Your task to perform on an android device: Go to wifi settings Image 0: 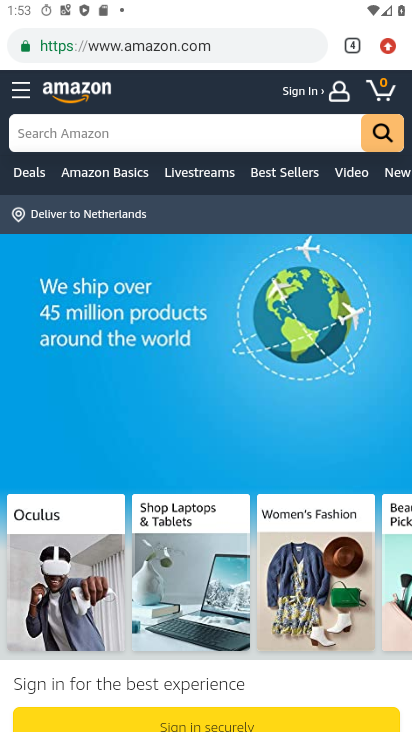
Step 0: press home button
Your task to perform on an android device: Go to wifi settings Image 1: 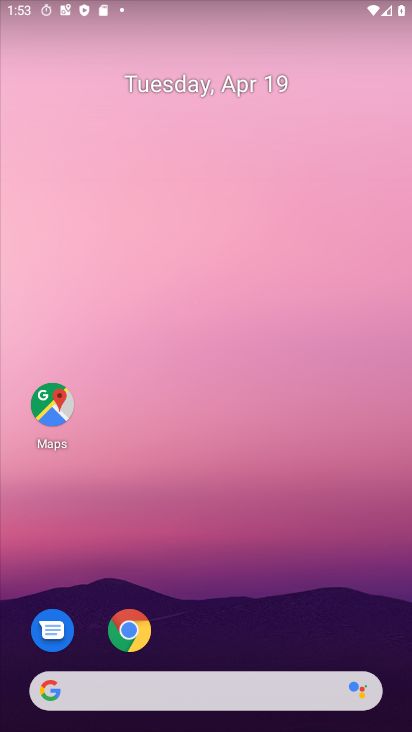
Step 1: drag from (265, 599) to (265, 17)
Your task to perform on an android device: Go to wifi settings Image 2: 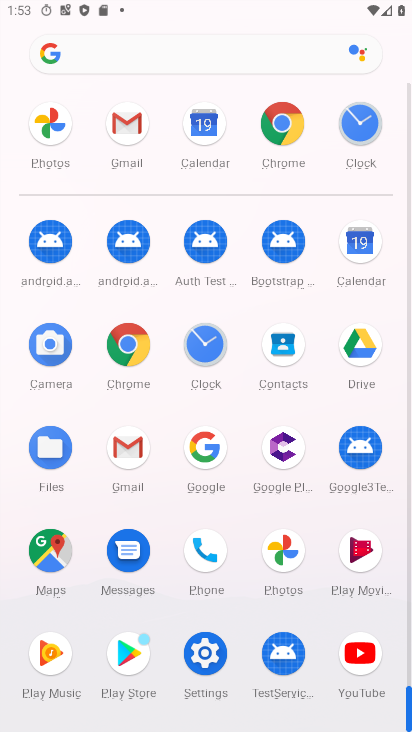
Step 2: click (209, 650)
Your task to perform on an android device: Go to wifi settings Image 3: 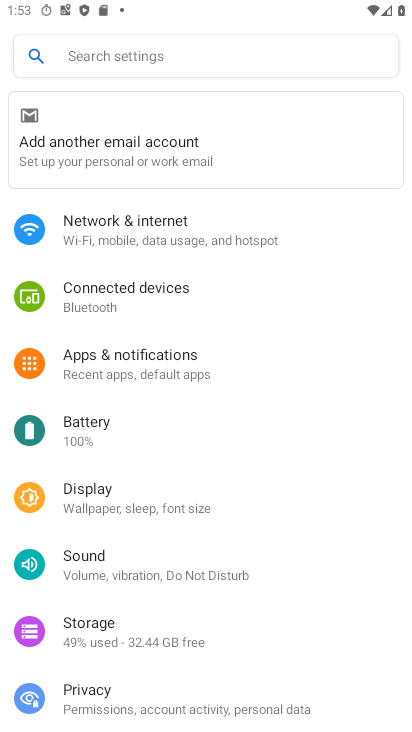
Step 3: click (159, 238)
Your task to perform on an android device: Go to wifi settings Image 4: 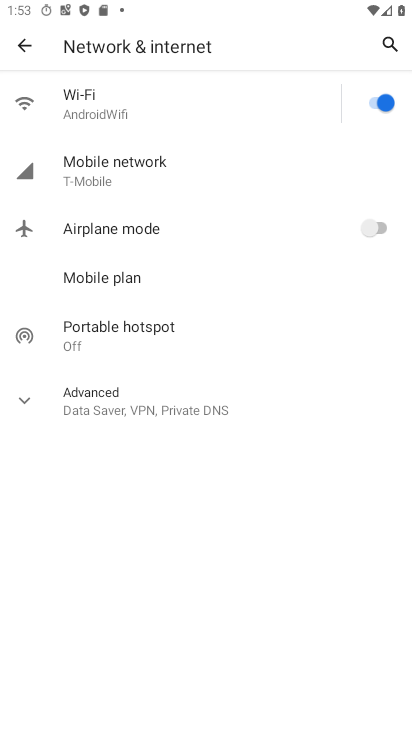
Step 4: click (182, 101)
Your task to perform on an android device: Go to wifi settings Image 5: 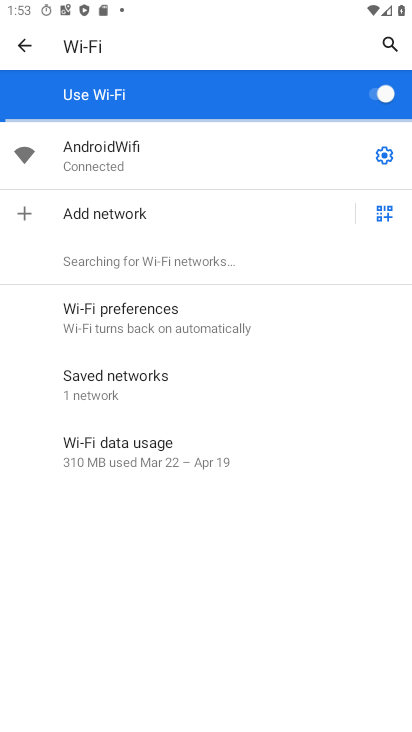
Step 5: task complete